Your task to perform on an android device: What is the news today? Image 0: 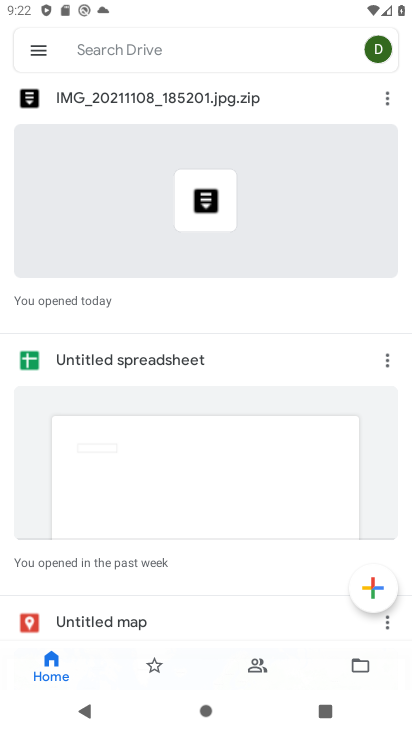
Step 0: press home button
Your task to perform on an android device: What is the news today? Image 1: 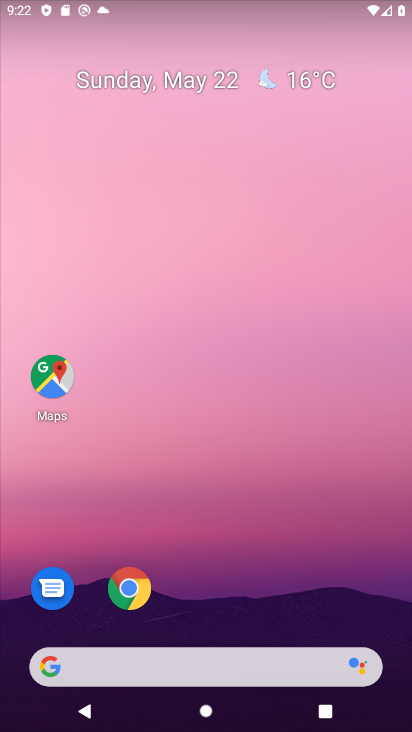
Step 1: drag from (218, 566) to (218, 188)
Your task to perform on an android device: What is the news today? Image 2: 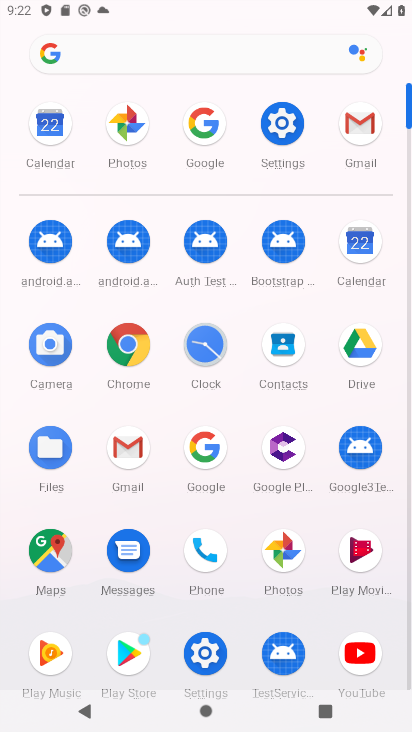
Step 2: click (194, 450)
Your task to perform on an android device: What is the news today? Image 3: 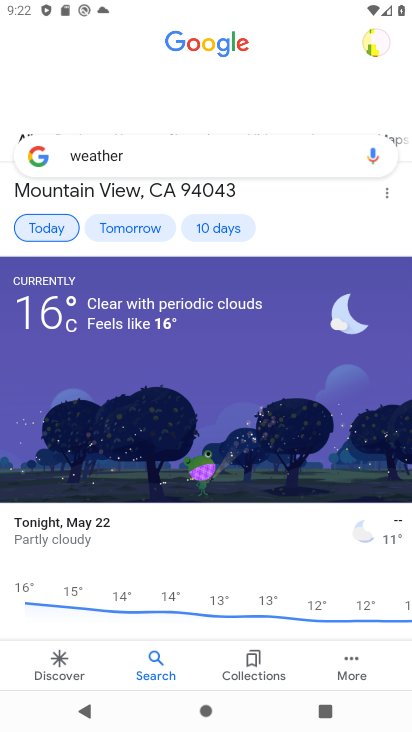
Step 3: click (144, 151)
Your task to perform on an android device: What is the news today? Image 4: 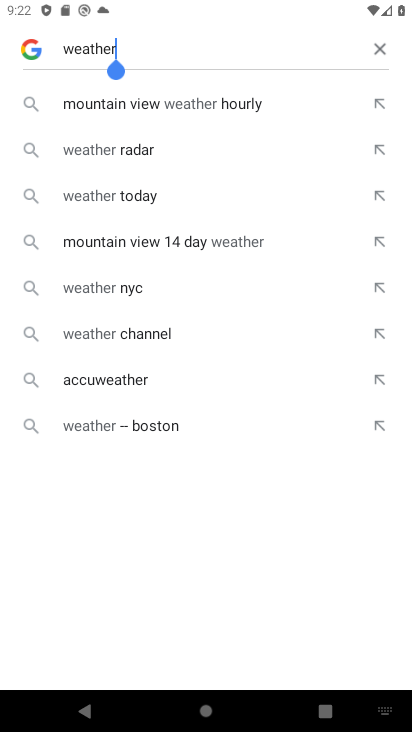
Step 4: click (374, 43)
Your task to perform on an android device: What is the news today? Image 5: 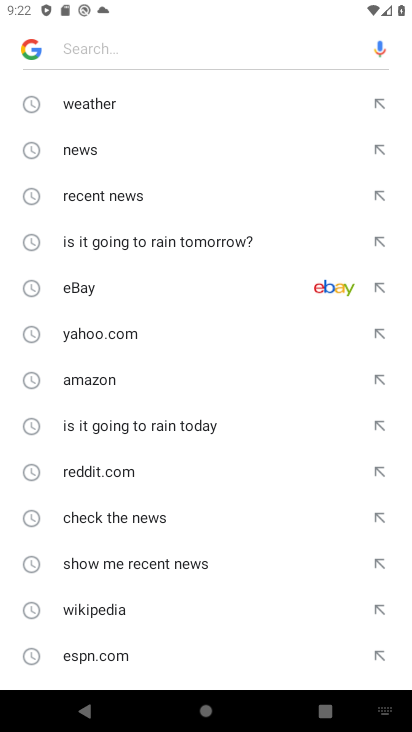
Step 5: click (73, 141)
Your task to perform on an android device: What is the news today? Image 6: 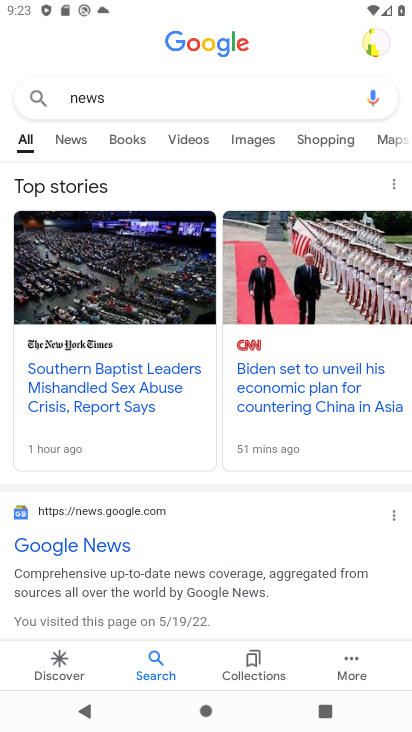
Step 6: click (72, 130)
Your task to perform on an android device: What is the news today? Image 7: 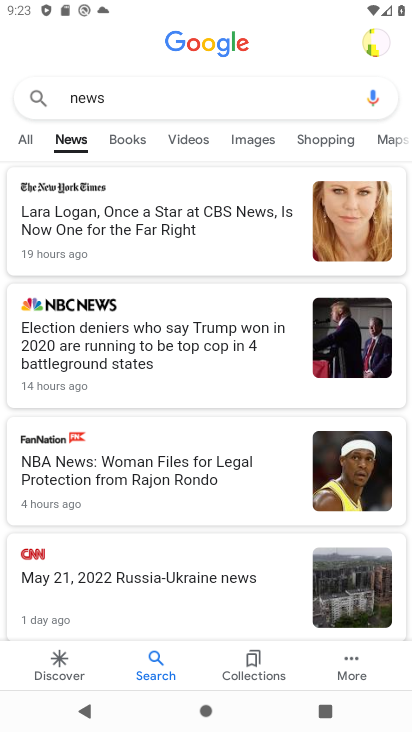
Step 7: task complete